Your task to perform on an android device: visit the assistant section in the google photos Image 0: 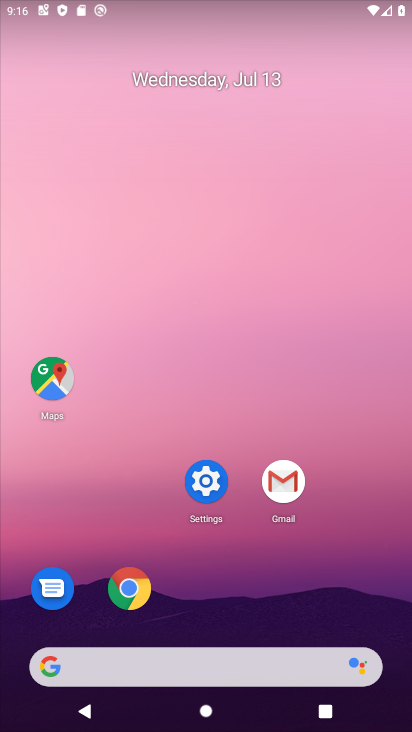
Step 0: drag from (400, 596) to (394, 185)
Your task to perform on an android device: visit the assistant section in the google photos Image 1: 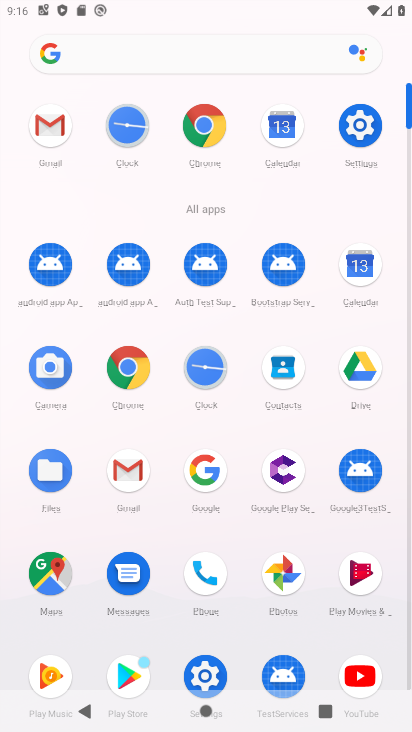
Step 1: click (271, 575)
Your task to perform on an android device: visit the assistant section in the google photos Image 2: 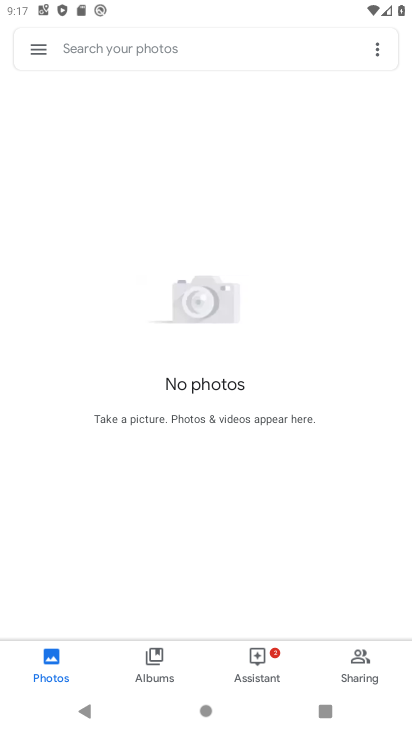
Step 2: click (272, 672)
Your task to perform on an android device: visit the assistant section in the google photos Image 3: 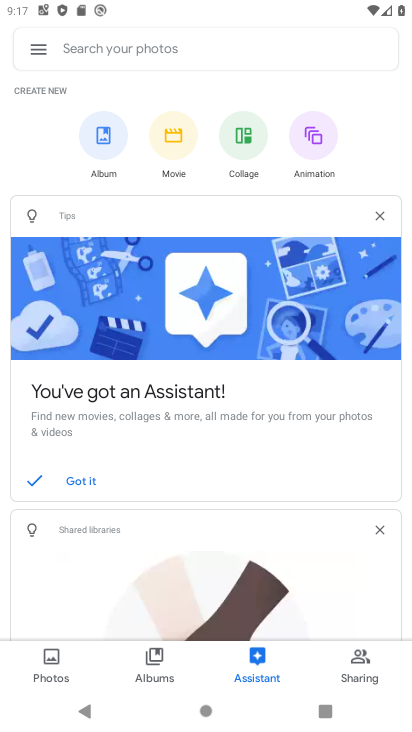
Step 3: task complete